Your task to perform on an android device: Clear the shopping cart on newegg.com. Add sony triple a to the cart on newegg.com Image 0: 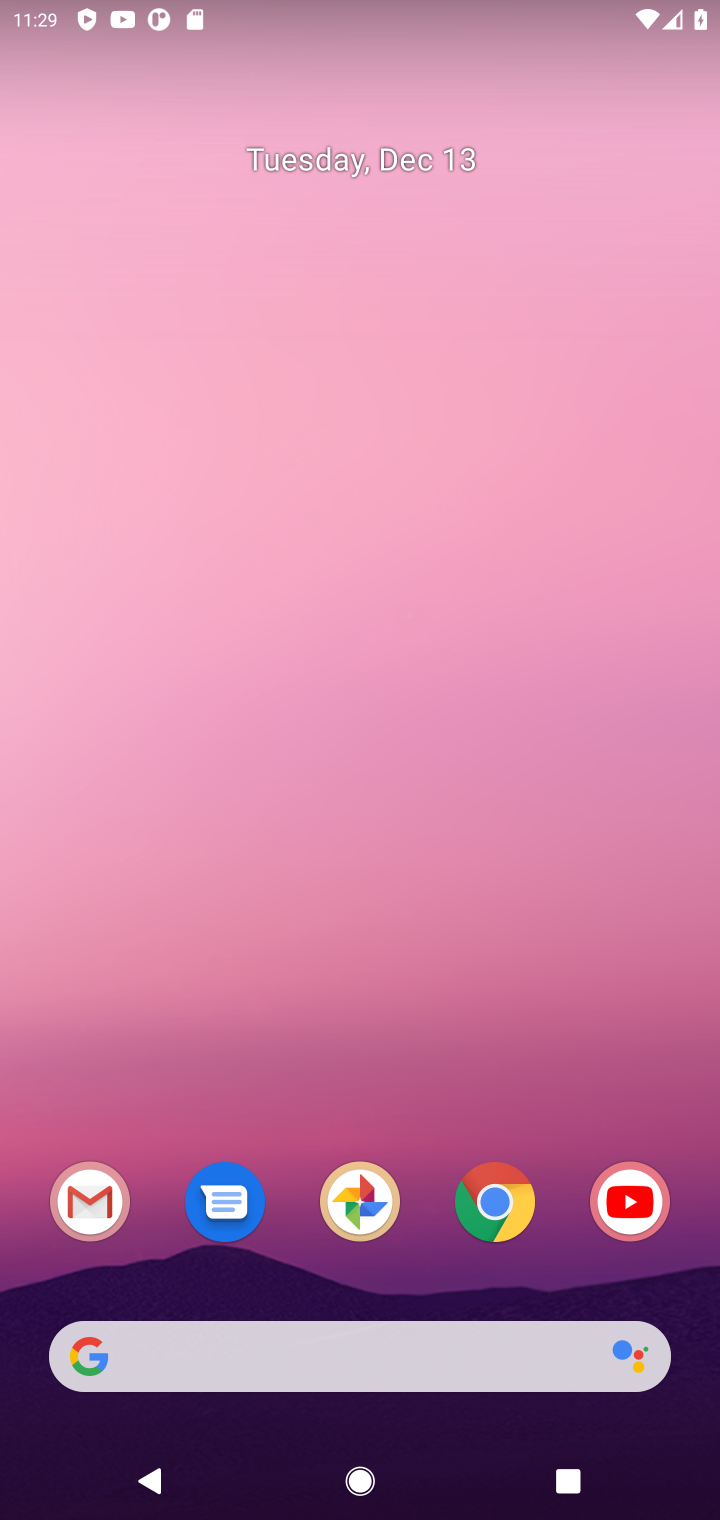
Step 0: click (496, 1196)
Your task to perform on an android device: Clear the shopping cart on newegg.com. Add sony triple a to the cart on newegg.com Image 1: 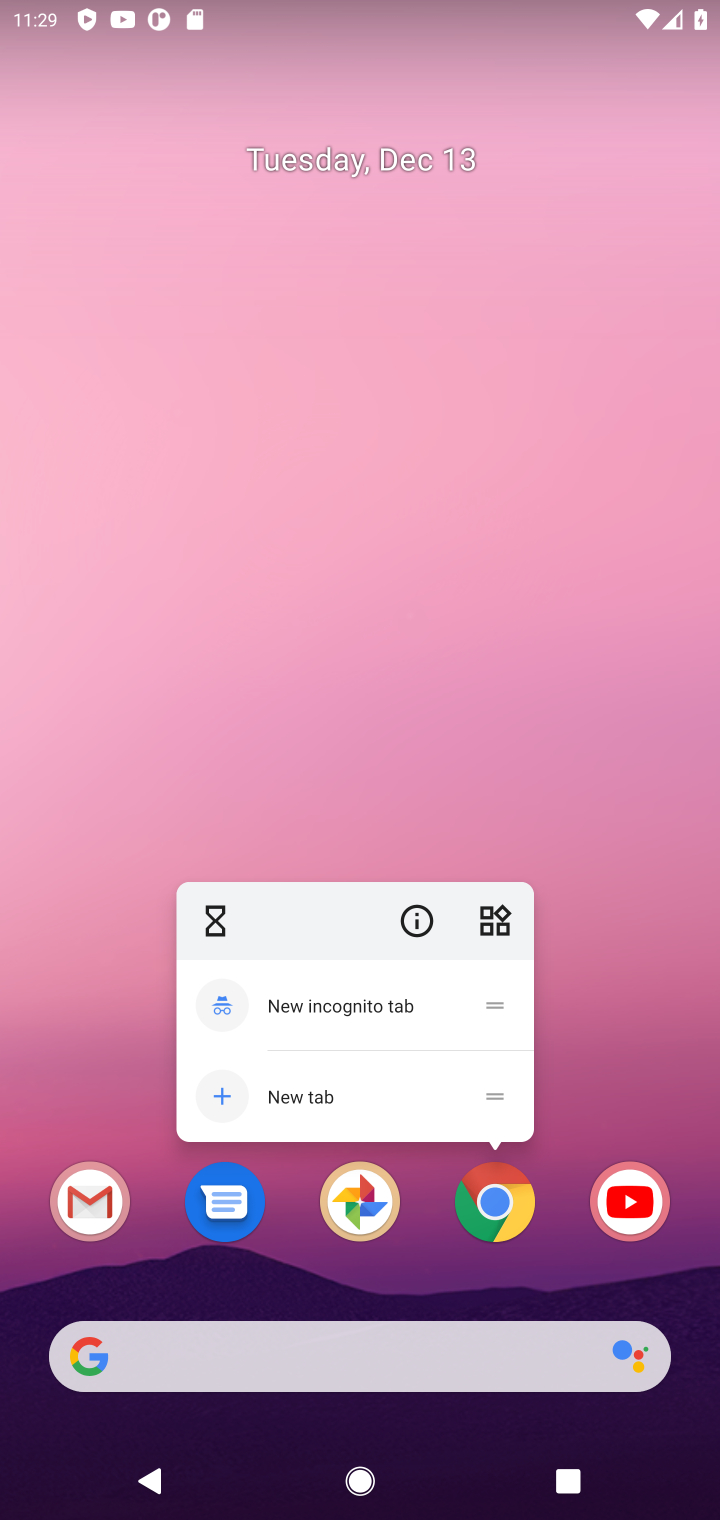
Step 1: click (491, 1176)
Your task to perform on an android device: Clear the shopping cart on newegg.com. Add sony triple a to the cart on newegg.com Image 2: 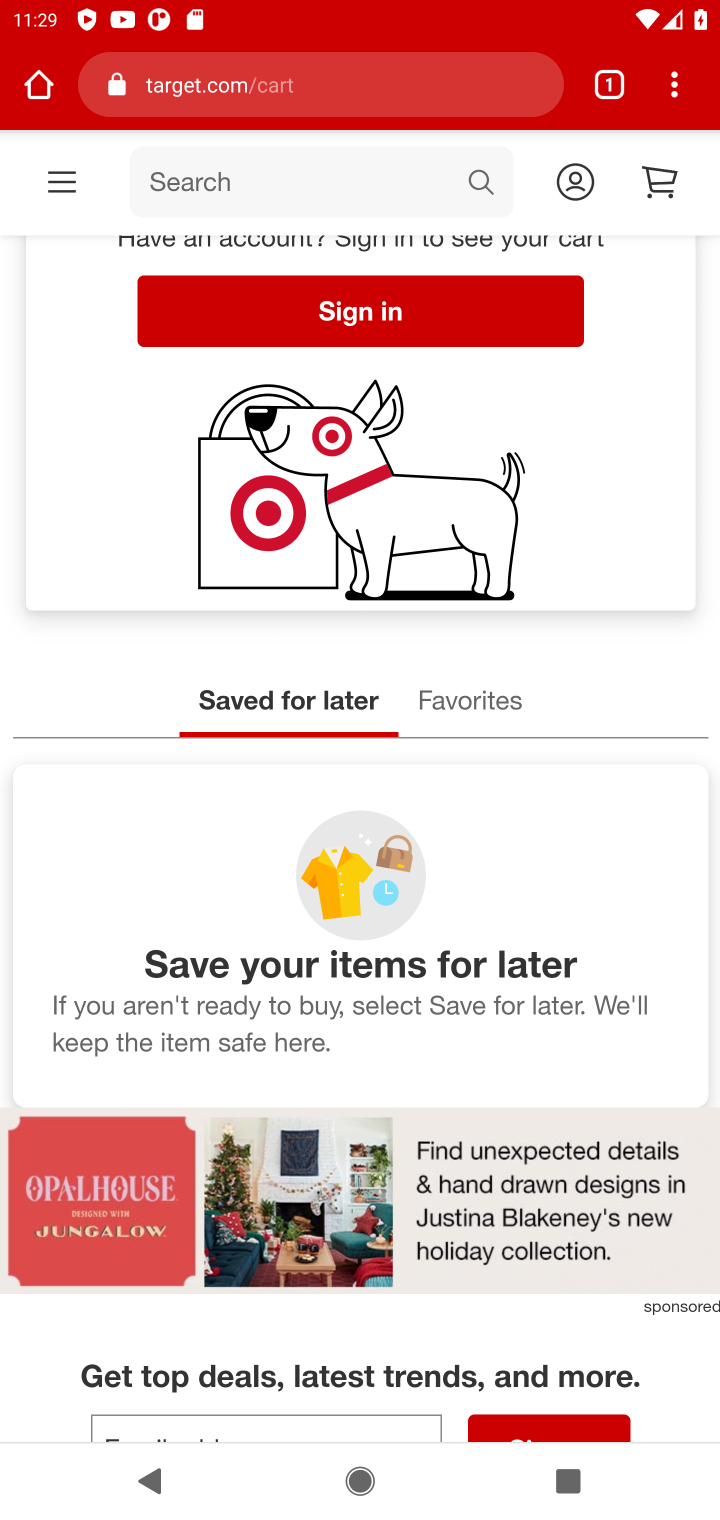
Step 2: click (309, 80)
Your task to perform on an android device: Clear the shopping cart on newegg.com. Add sony triple a to the cart on newegg.com Image 3: 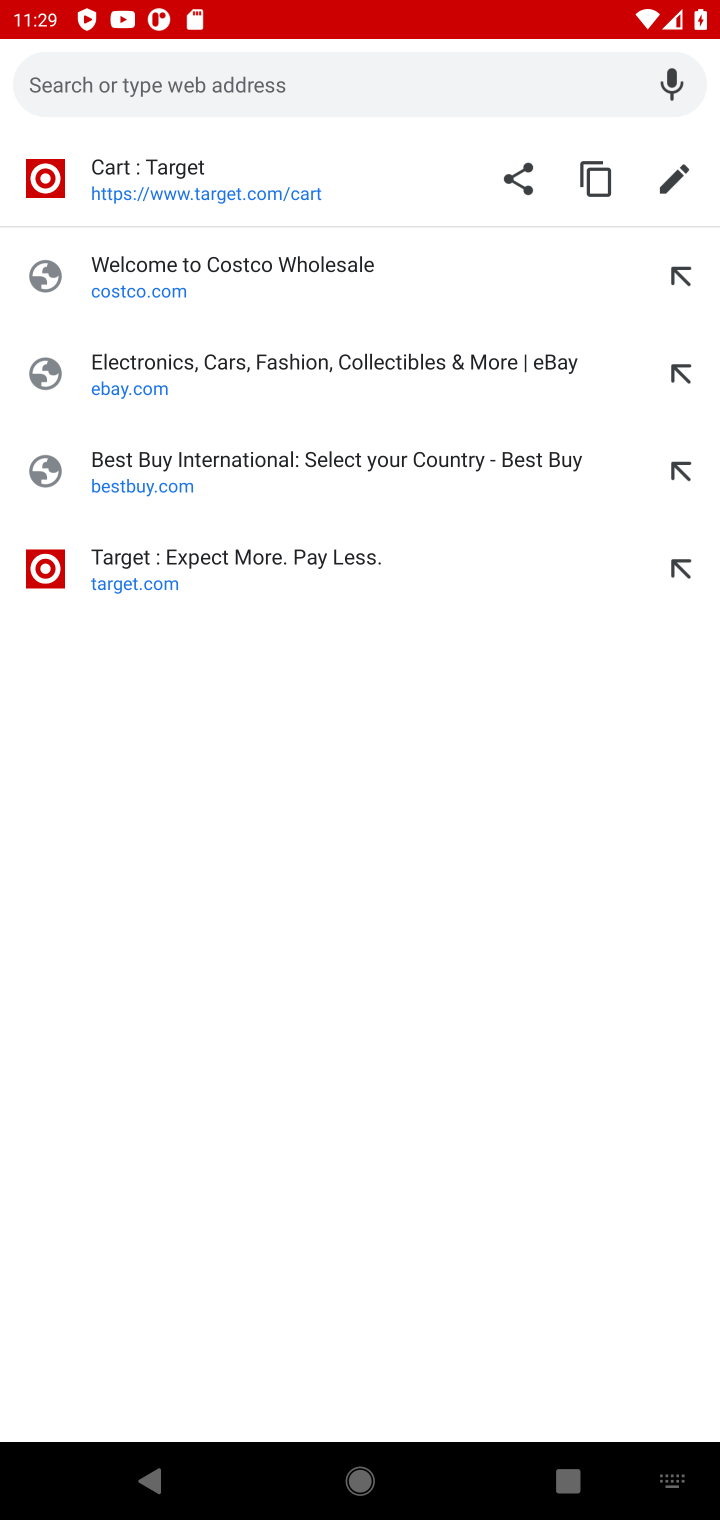
Step 3: type "newegg"
Your task to perform on an android device: Clear the shopping cart on newegg.com. Add sony triple a to the cart on newegg.com Image 4: 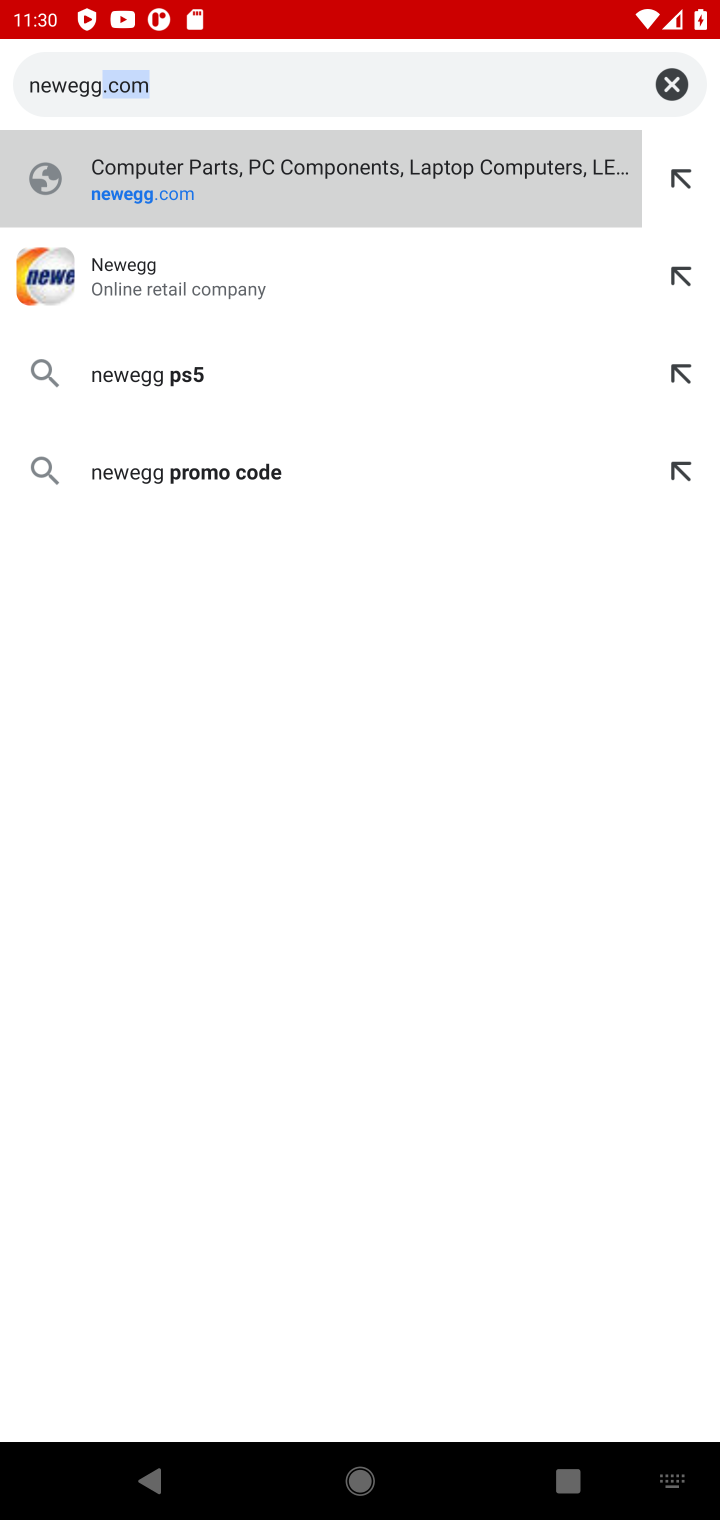
Step 4: click (179, 160)
Your task to perform on an android device: Clear the shopping cart on newegg.com. Add sony triple a to the cart on newegg.com Image 5: 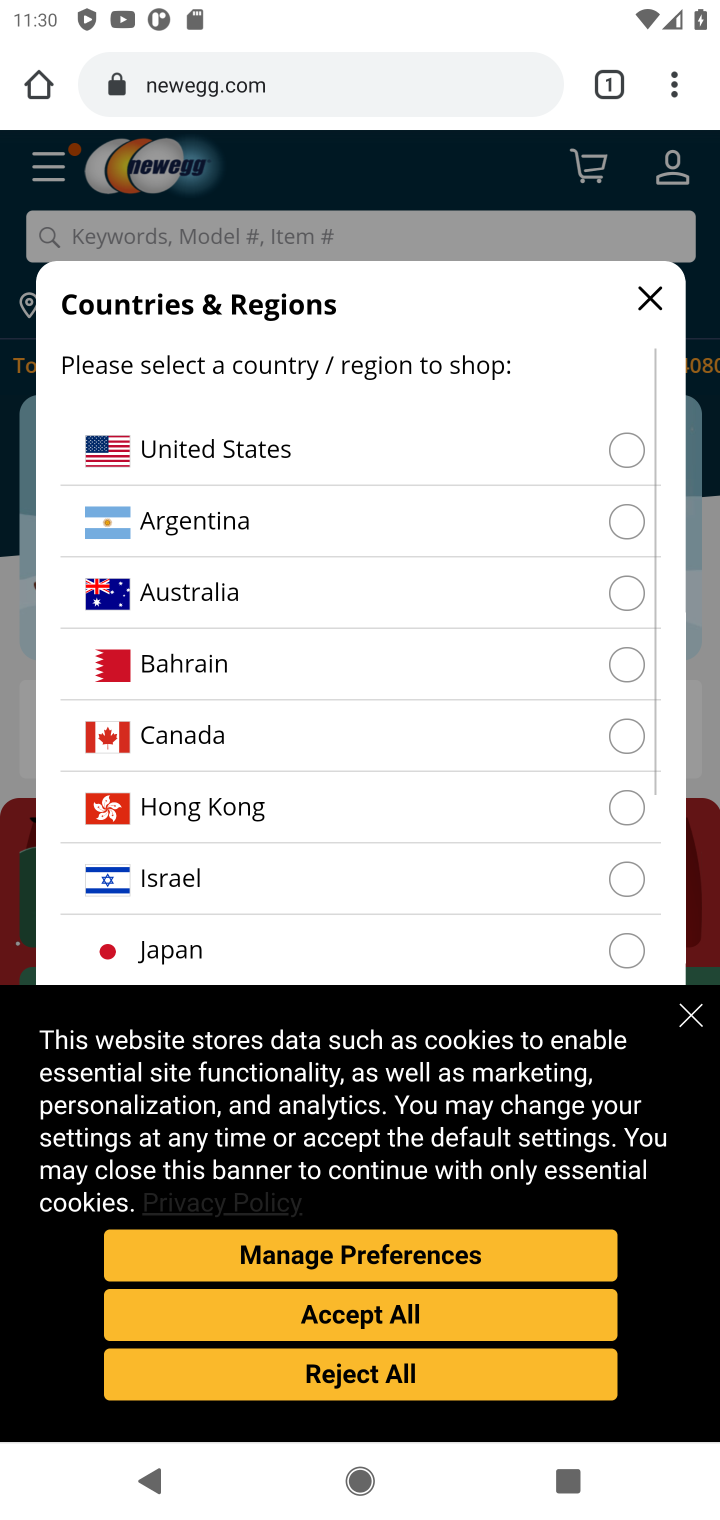
Step 5: click (399, 1318)
Your task to perform on an android device: Clear the shopping cart on newegg.com. Add sony triple a to the cart on newegg.com Image 6: 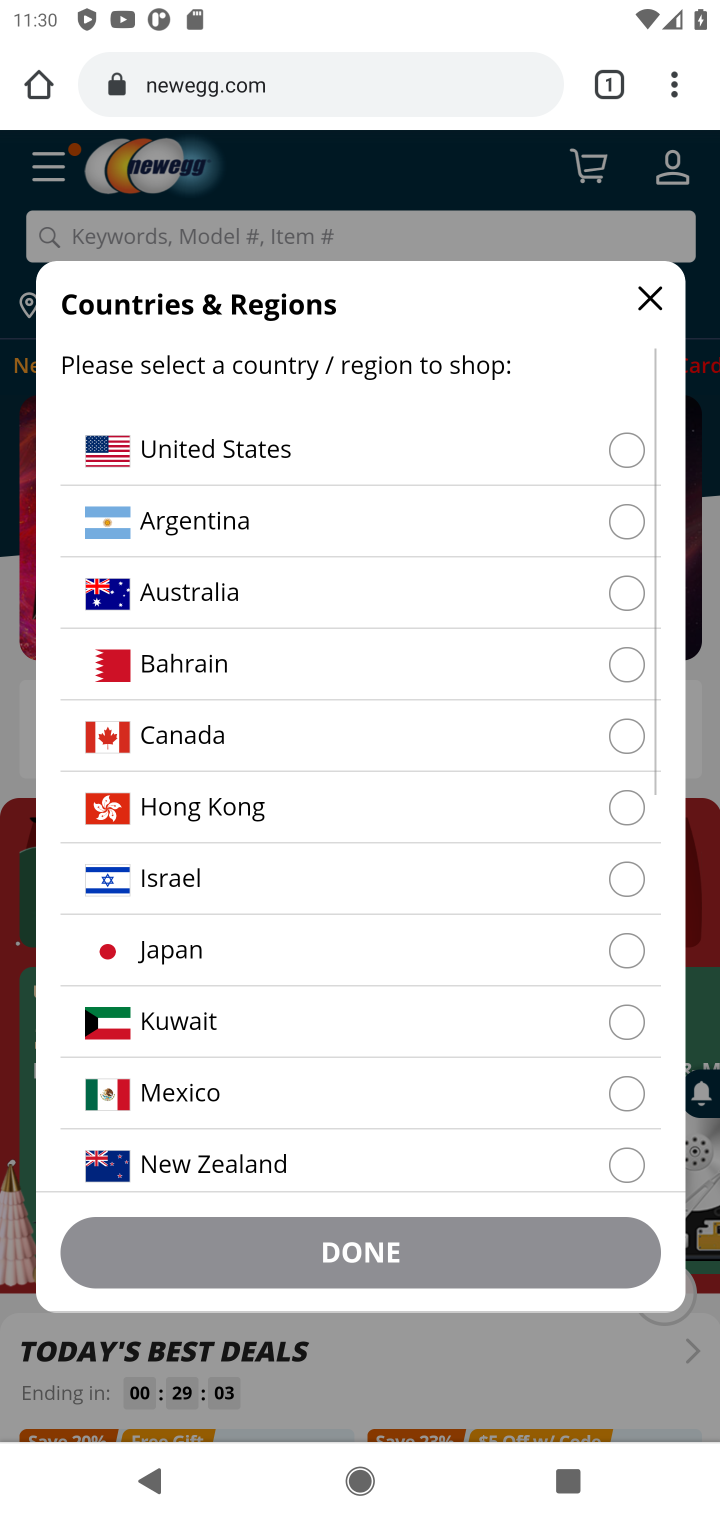
Step 6: click (354, 452)
Your task to perform on an android device: Clear the shopping cart on newegg.com. Add sony triple a to the cart on newegg.com Image 7: 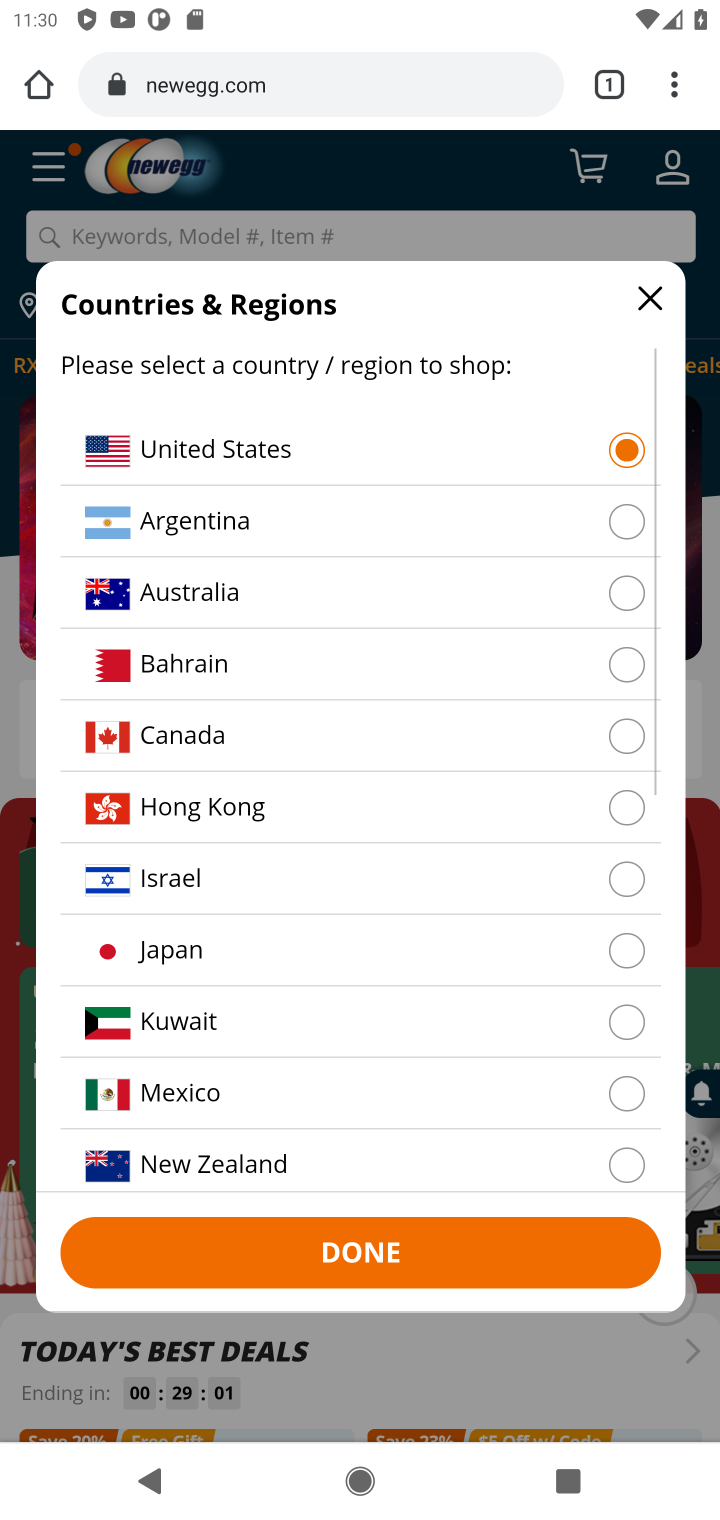
Step 7: click (386, 1266)
Your task to perform on an android device: Clear the shopping cart on newegg.com. Add sony triple a to the cart on newegg.com Image 8: 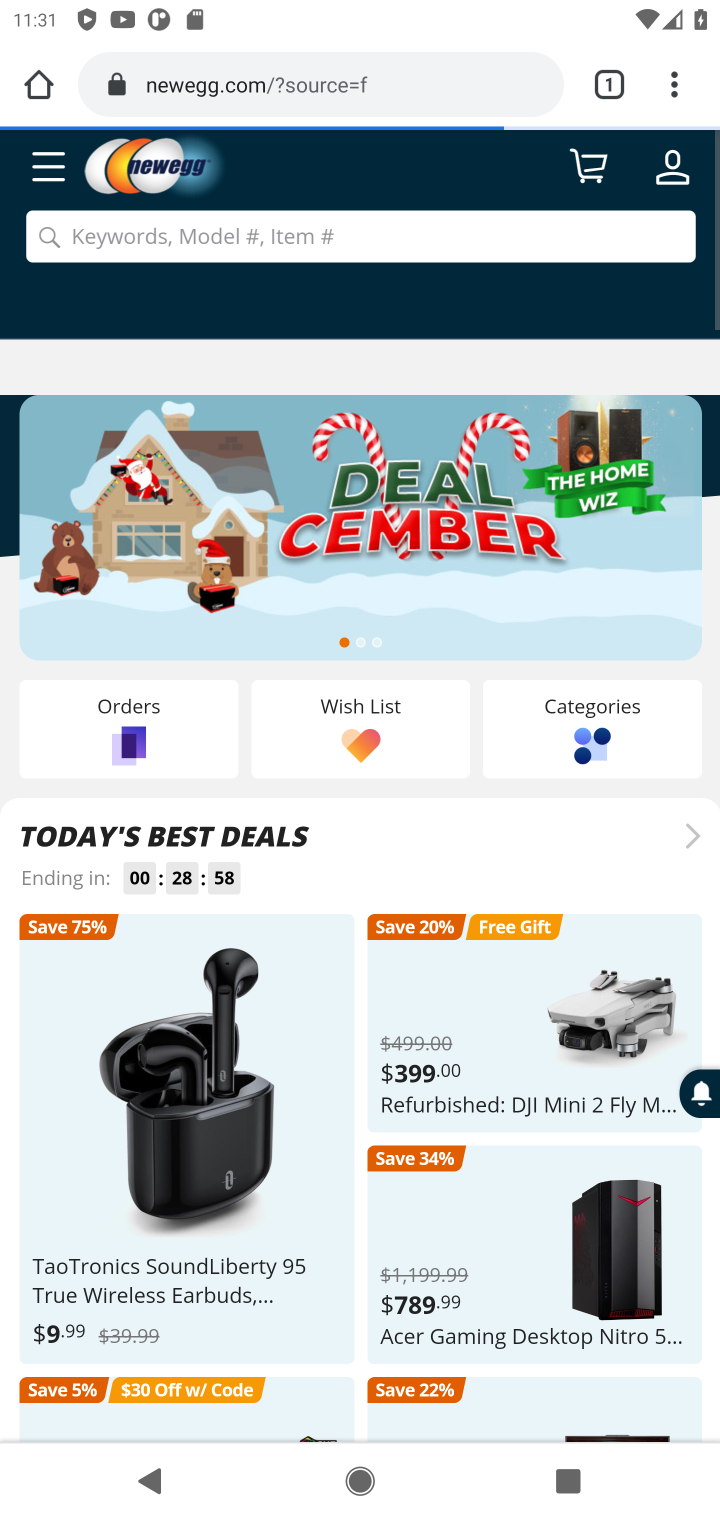
Step 8: click (670, 165)
Your task to perform on an android device: Clear the shopping cart on newegg.com. Add sony triple a to the cart on newegg.com Image 9: 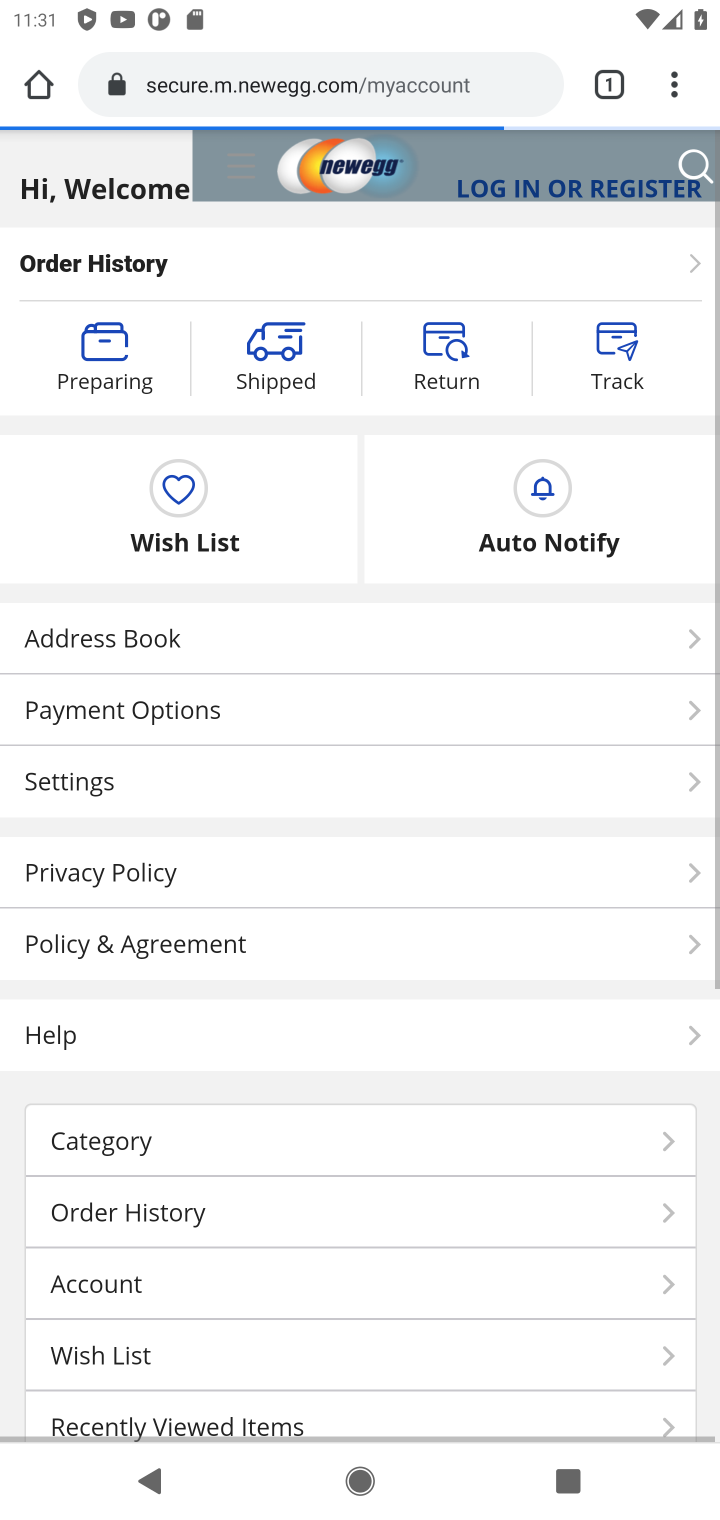
Step 9: click (596, 172)
Your task to perform on an android device: Clear the shopping cart on newegg.com. Add sony triple a to the cart on newegg.com Image 10: 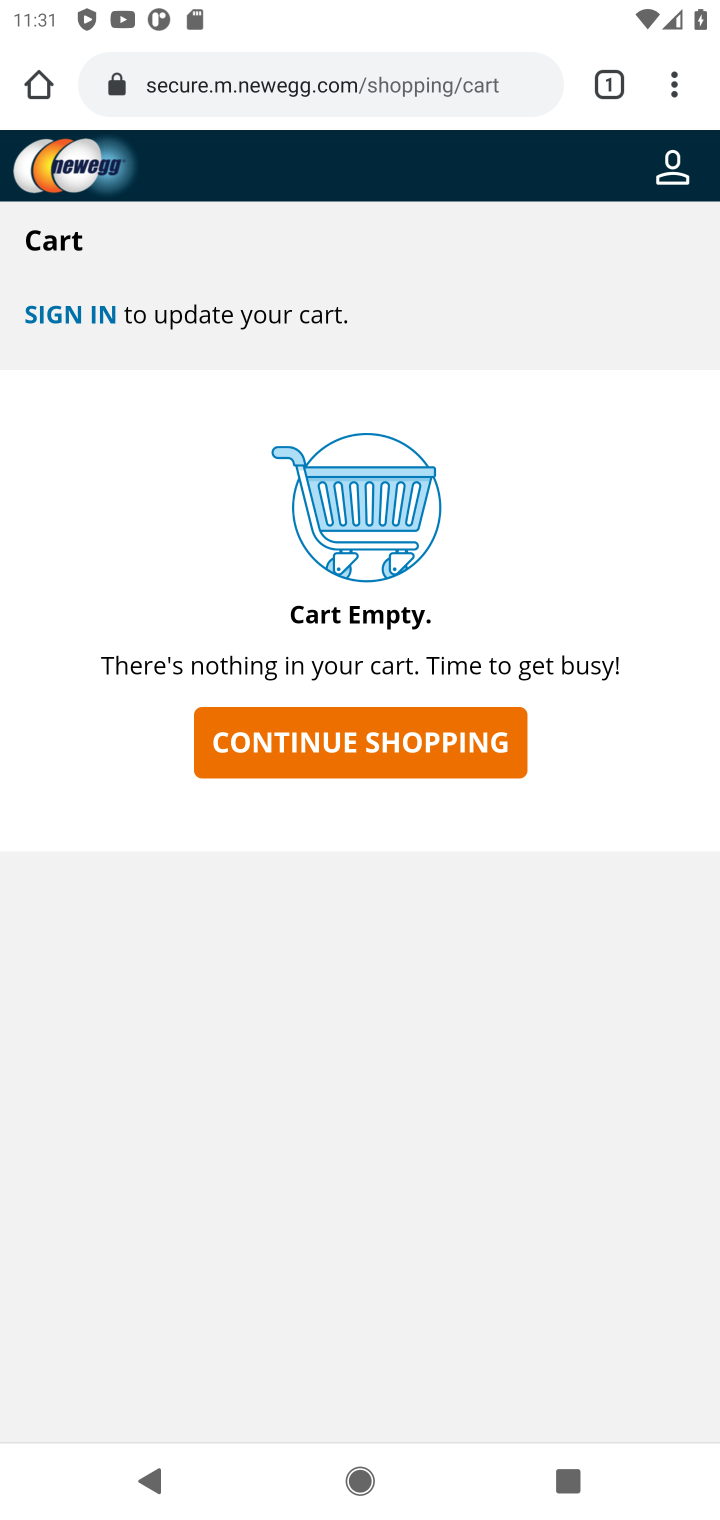
Step 10: click (69, 173)
Your task to perform on an android device: Clear the shopping cart on newegg.com. Add sony triple a to the cart on newegg.com Image 11: 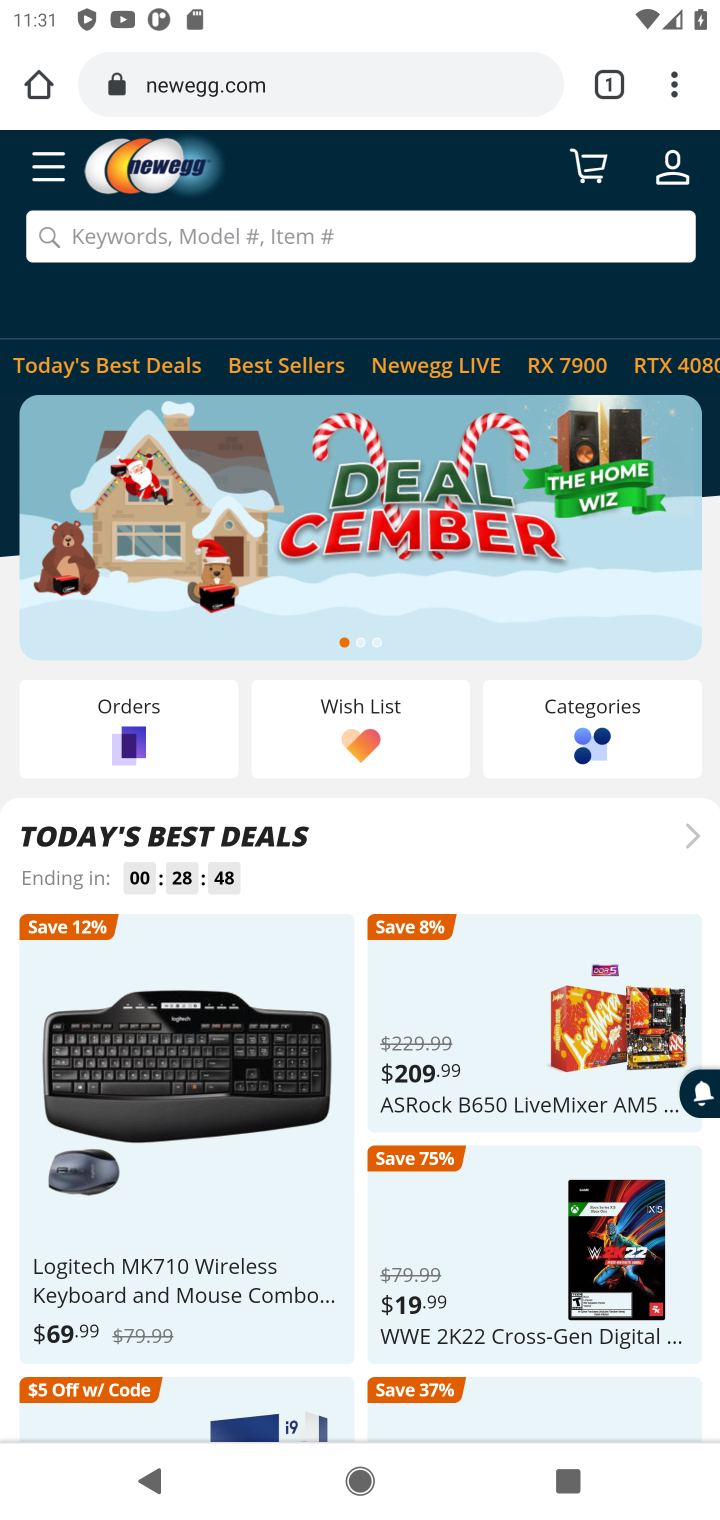
Step 11: click (347, 241)
Your task to perform on an android device: Clear the shopping cart on newegg.com. Add sony triple a to the cart on newegg.com Image 12: 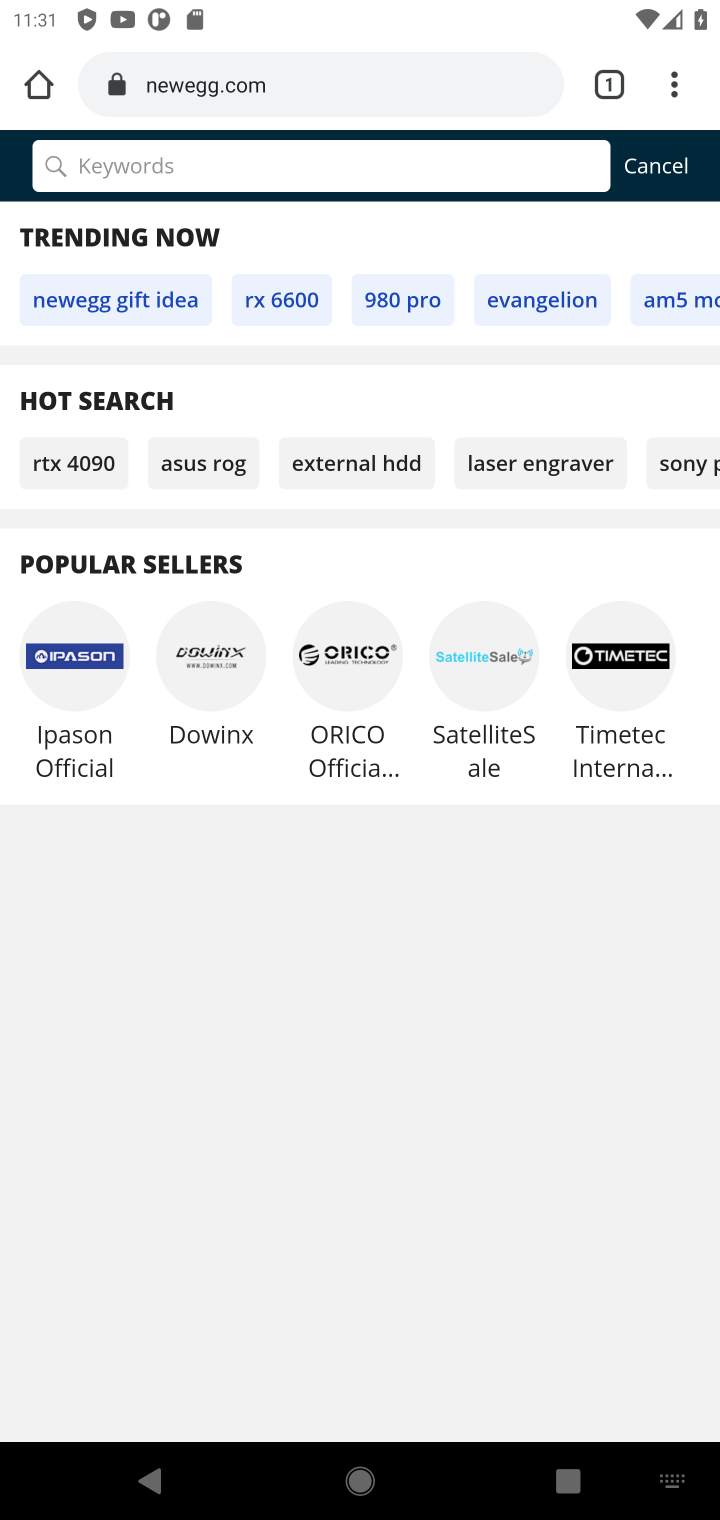
Step 12: type "sony triple a"
Your task to perform on an android device: Clear the shopping cart on newegg.com. Add sony triple a to the cart on newegg.com Image 13: 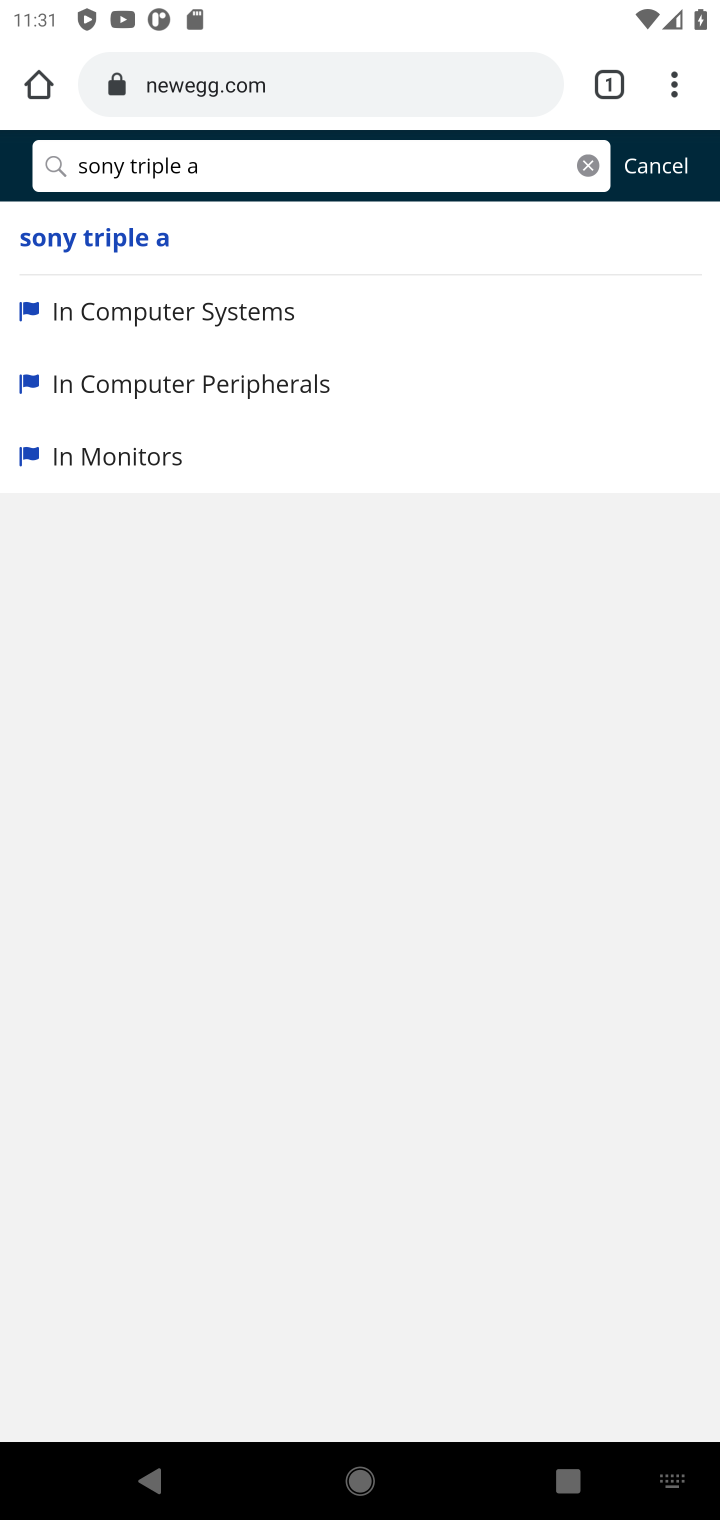
Step 13: click (109, 250)
Your task to perform on an android device: Clear the shopping cart on newegg.com. Add sony triple a to the cart on newegg.com Image 14: 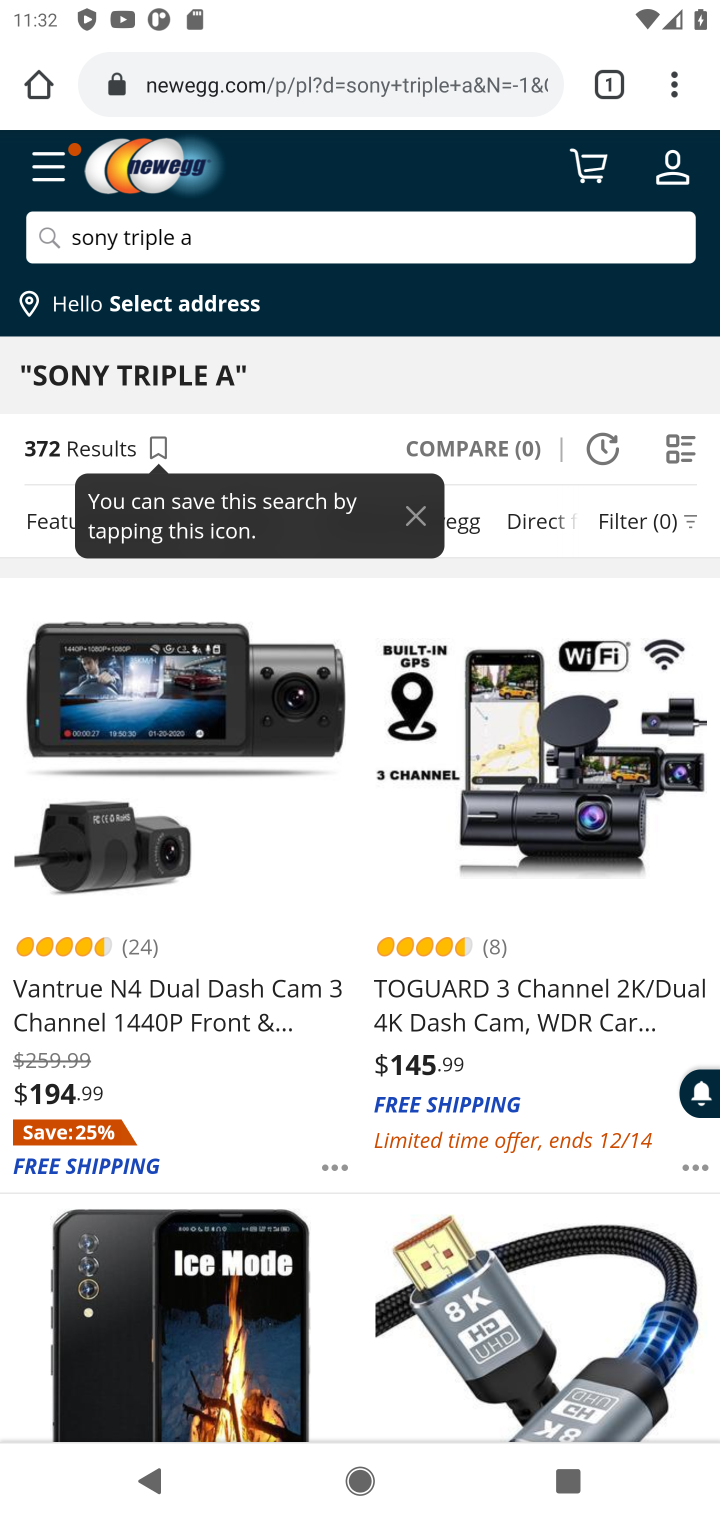
Step 14: click (197, 743)
Your task to perform on an android device: Clear the shopping cart on newegg.com. Add sony triple a to the cart on newegg.com Image 15: 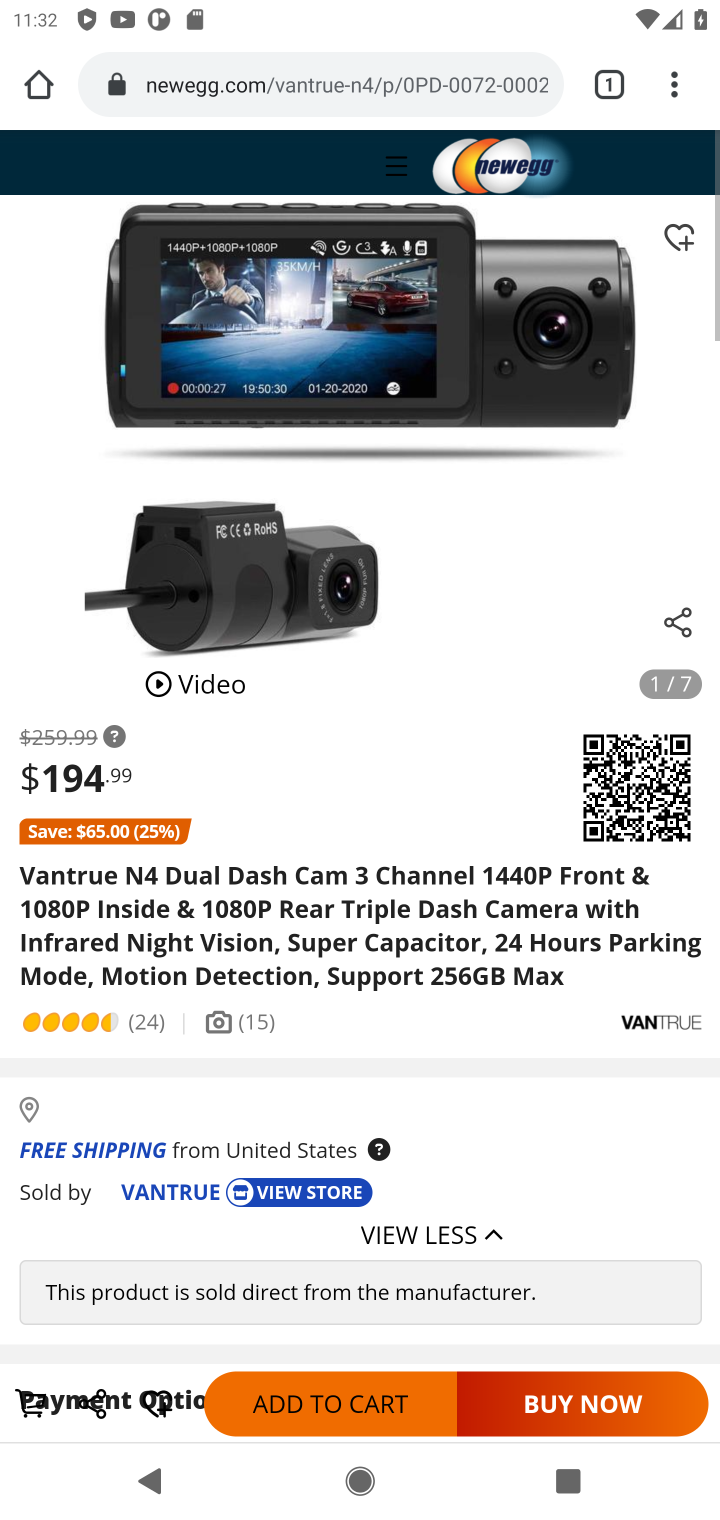
Step 15: click (378, 1401)
Your task to perform on an android device: Clear the shopping cart on newegg.com. Add sony triple a to the cart on newegg.com Image 16: 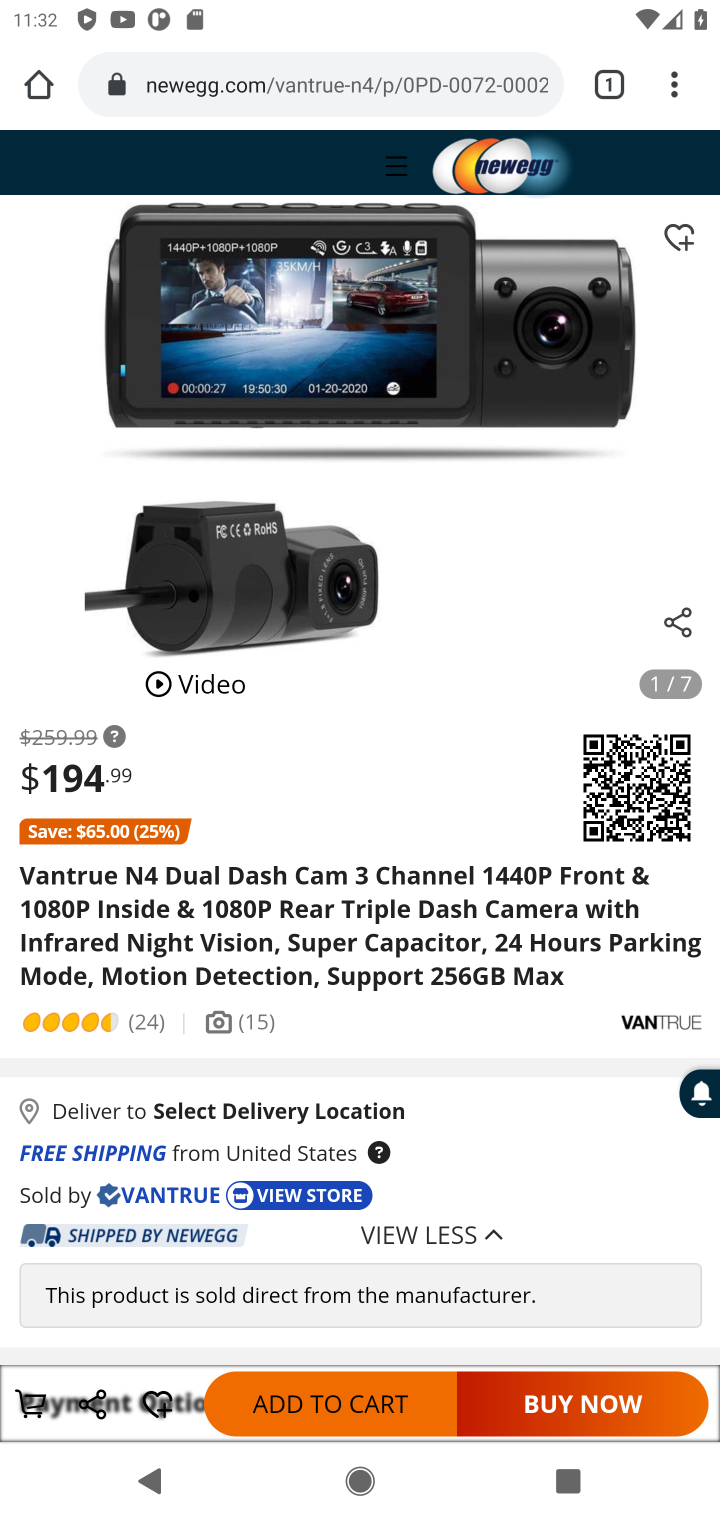
Step 16: task complete